Your task to perform on an android device: change the upload size in google photos Image 0: 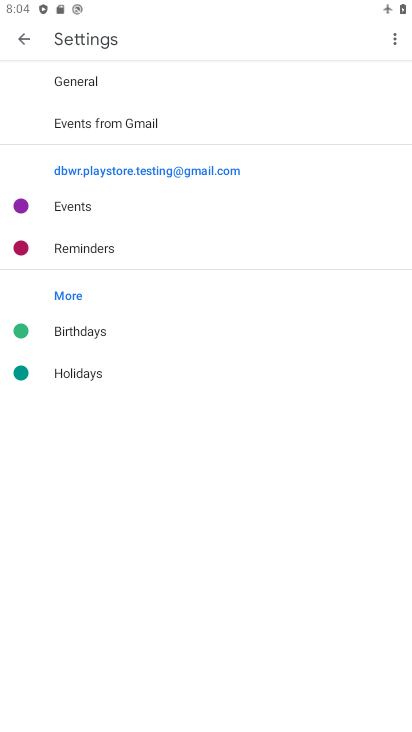
Step 0: press home button
Your task to perform on an android device: change the upload size in google photos Image 1: 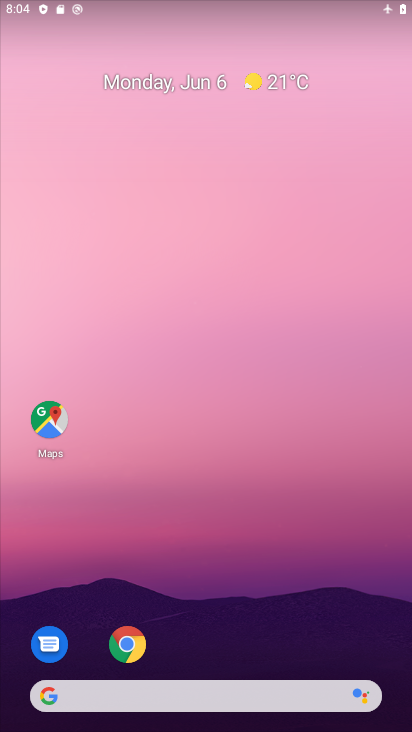
Step 1: drag from (191, 661) to (148, 65)
Your task to perform on an android device: change the upload size in google photos Image 2: 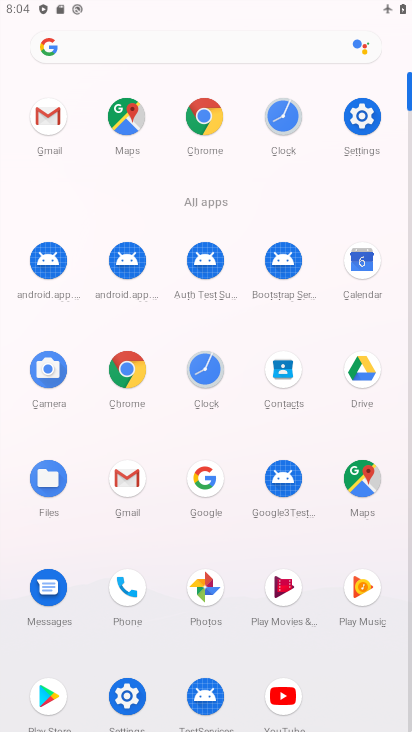
Step 2: click (204, 602)
Your task to perform on an android device: change the upload size in google photos Image 3: 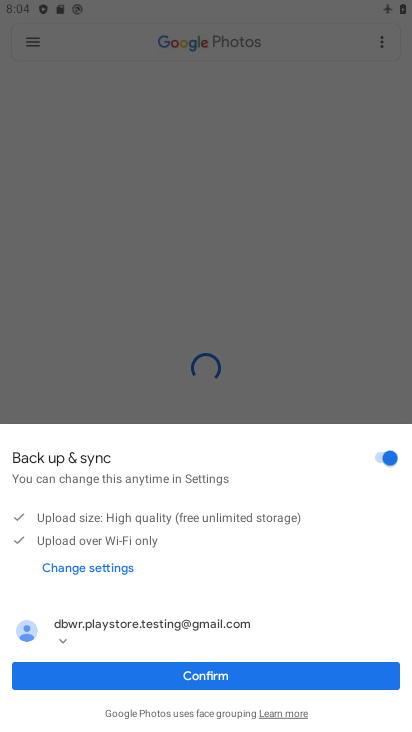
Step 3: click (233, 672)
Your task to perform on an android device: change the upload size in google photos Image 4: 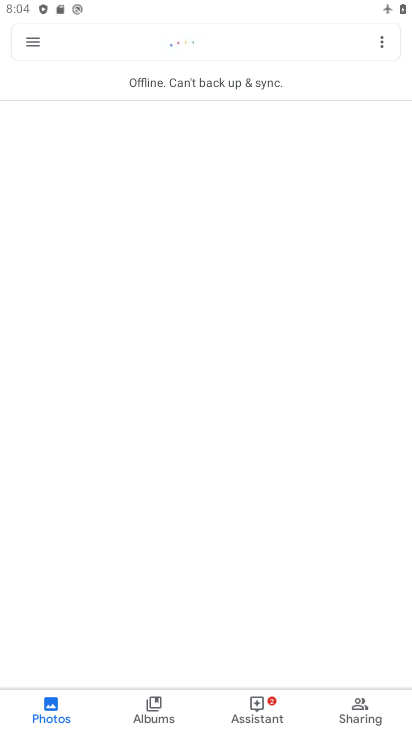
Step 4: drag from (29, 33) to (87, 254)
Your task to perform on an android device: change the upload size in google photos Image 5: 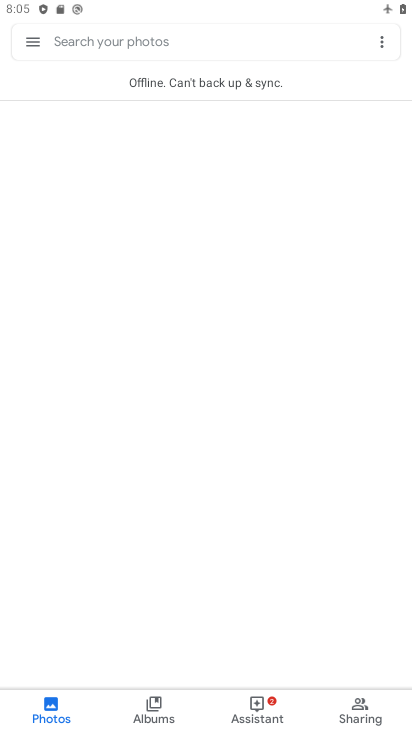
Step 5: click (37, 32)
Your task to perform on an android device: change the upload size in google photos Image 6: 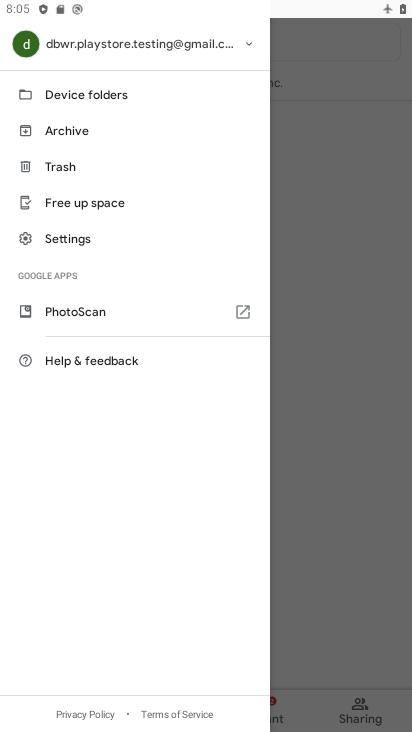
Step 6: click (104, 42)
Your task to perform on an android device: change the upload size in google photos Image 7: 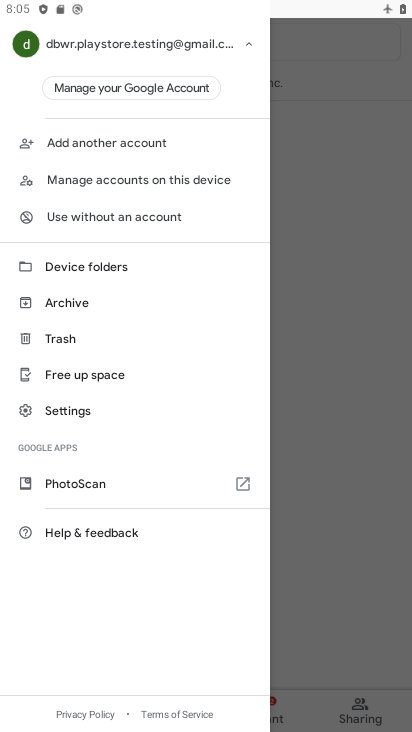
Step 7: click (70, 414)
Your task to perform on an android device: change the upload size in google photos Image 8: 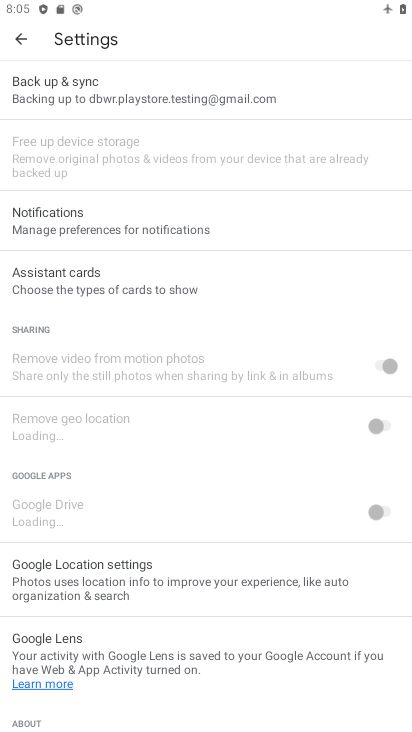
Step 8: click (98, 75)
Your task to perform on an android device: change the upload size in google photos Image 9: 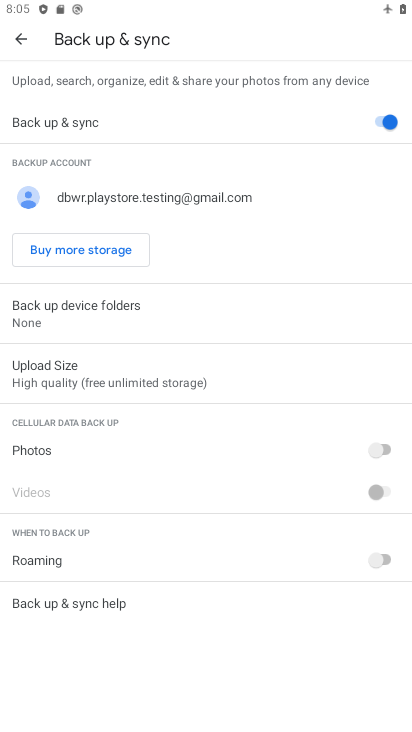
Step 9: click (115, 360)
Your task to perform on an android device: change the upload size in google photos Image 10: 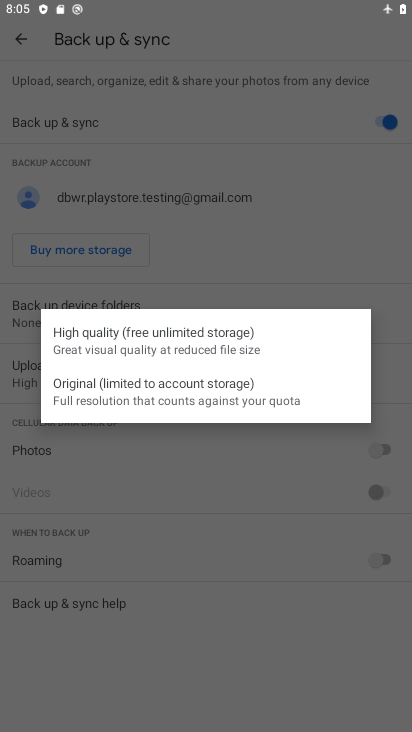
Step 10: click (149, 388)
Your task to perform on an android device: change the upload size in google photos Image 11: 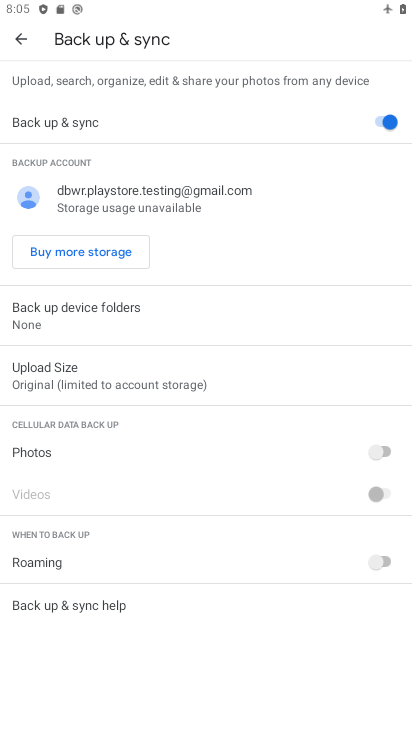
Step 11: task complete